Your task to perform on an android device: Go to Amazon Image 0: 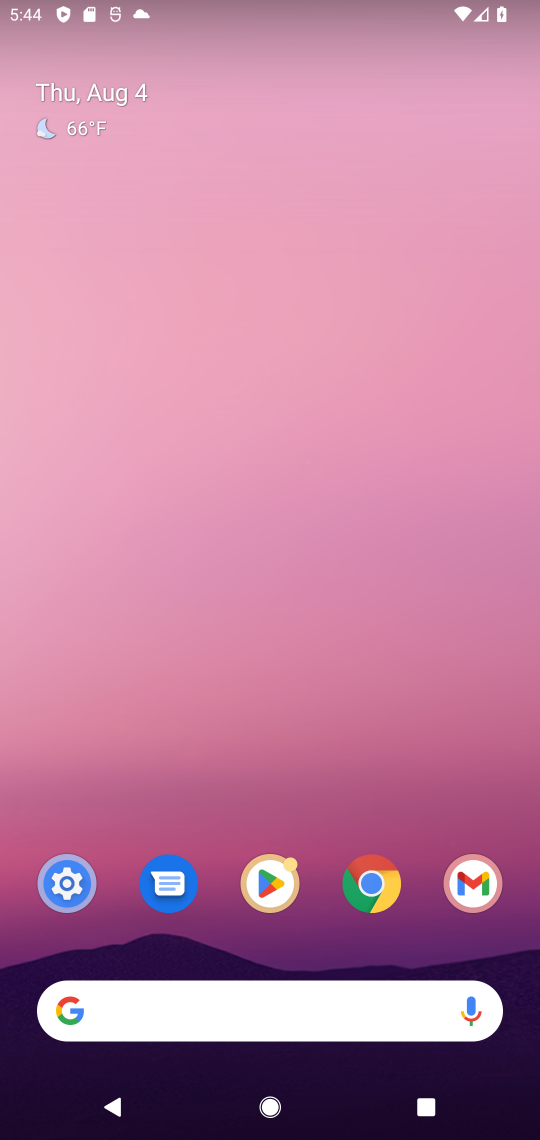
Step 0: click (178, 1012)
Your task to perform on an android device: Go to Amazon Image 1: 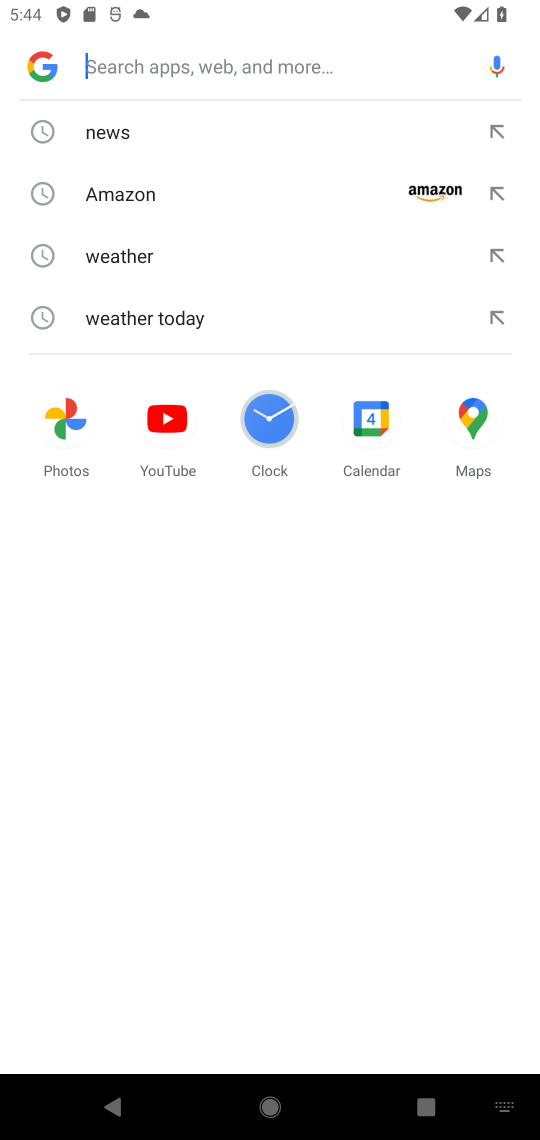
Step 1: click (158, 191)
Your task to perform on an android device: Go to Amazon Image 2: 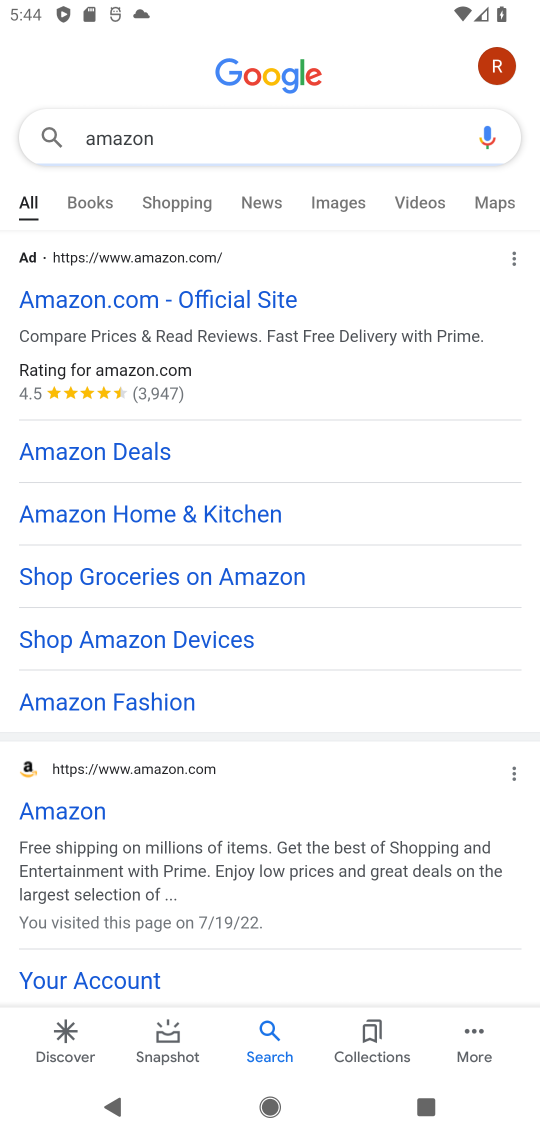
Step 2: click (230, 293)
Your task to perform on an android device: Go to Amazon Image 3: 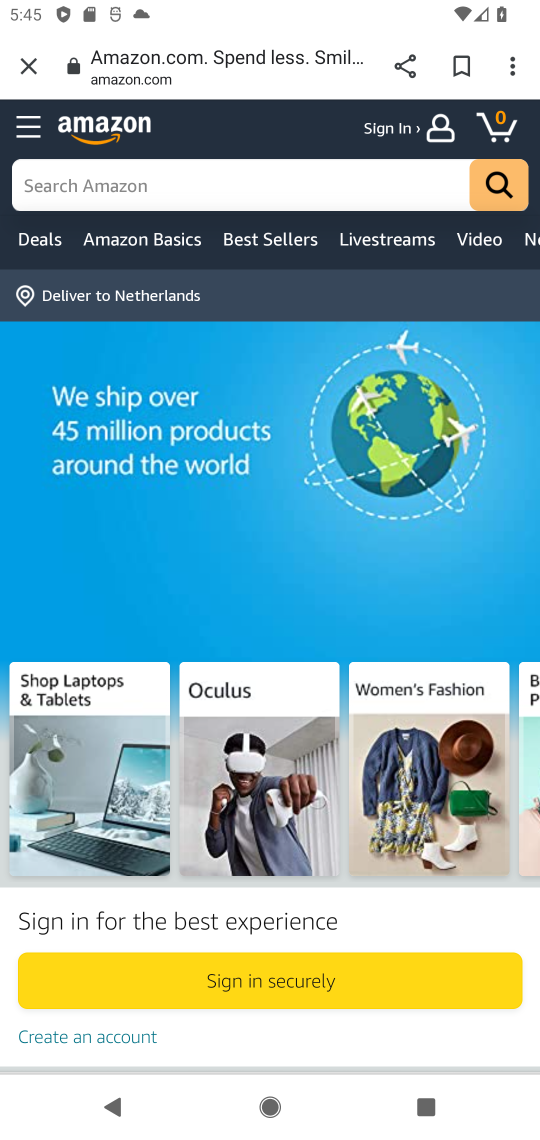
Step 3: task complete